Your task to perform on an android device: turn off wifi Image 0: 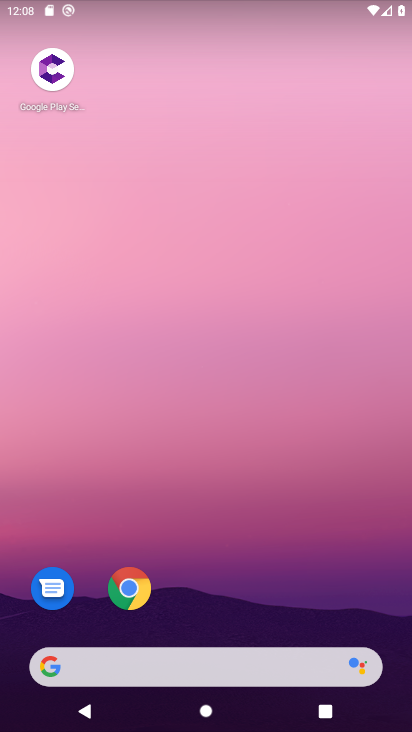
Step 0: drag from (221, 651) to (239, 192)
Your task to perform on an android device: turn off wifi Image 1: 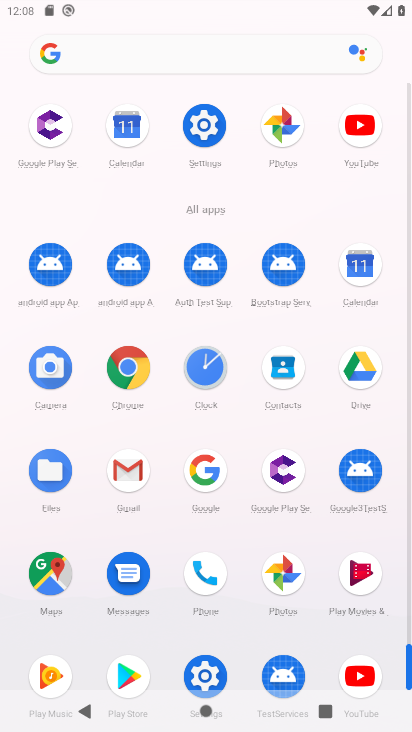
Step 1: click (213, 125)
Your task to perform on an android device: turn off wifi Image 2: 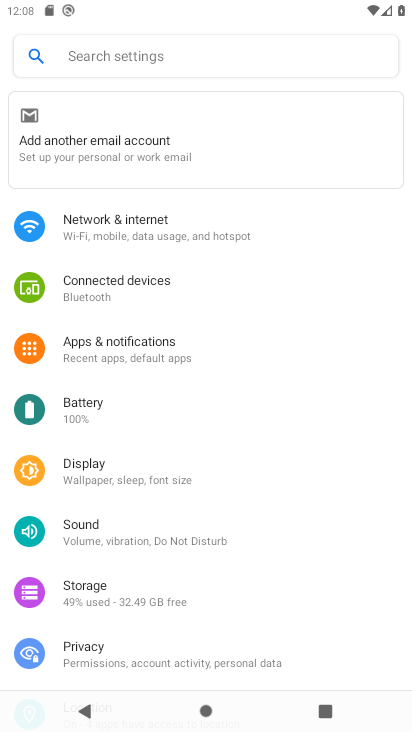
Step 2: click (142, 228)
Your task to perform on an android device: turn off wifi Image 3: 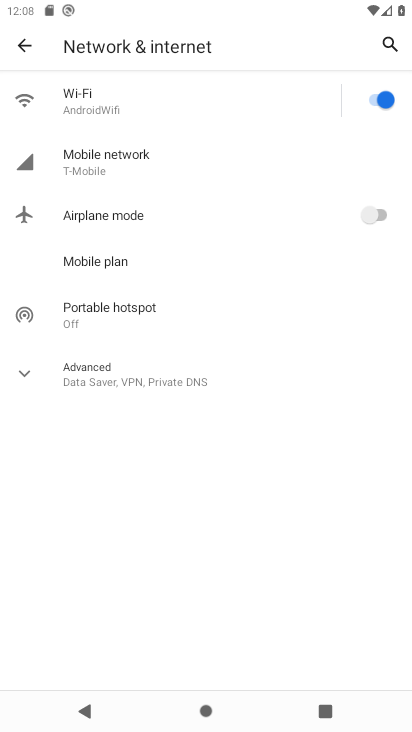
Step 3: click (372, 98)
Your task to perform on an android device: turn off wifi Image 4: 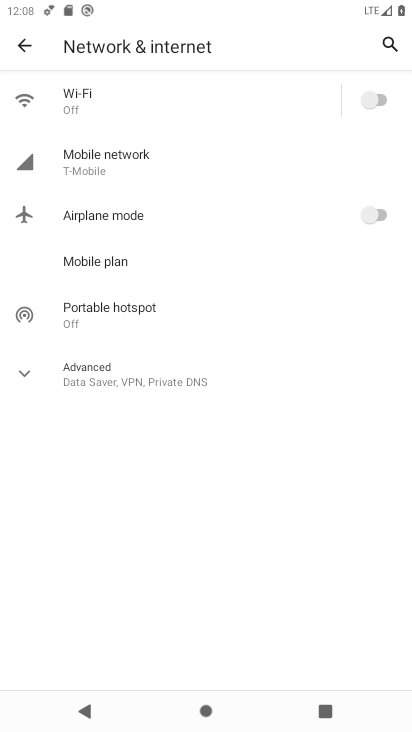
Step 4: task complete